Your task to perform on an android device: show emergency info Image 0: 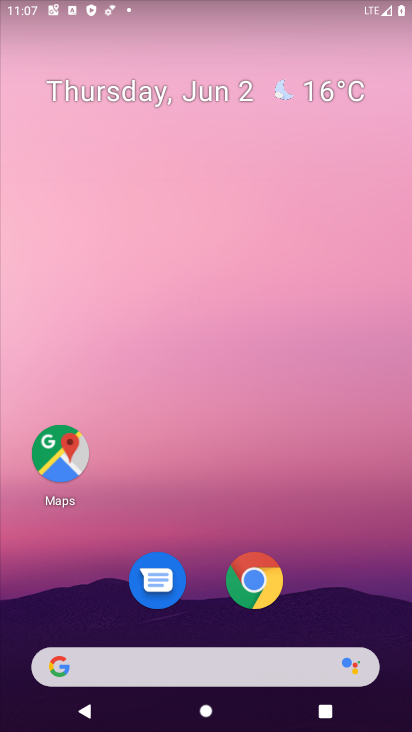
Step 0: drag from (184, 632) to (354, 24)
Your task to perform on an android device: show emergency info Image 1: 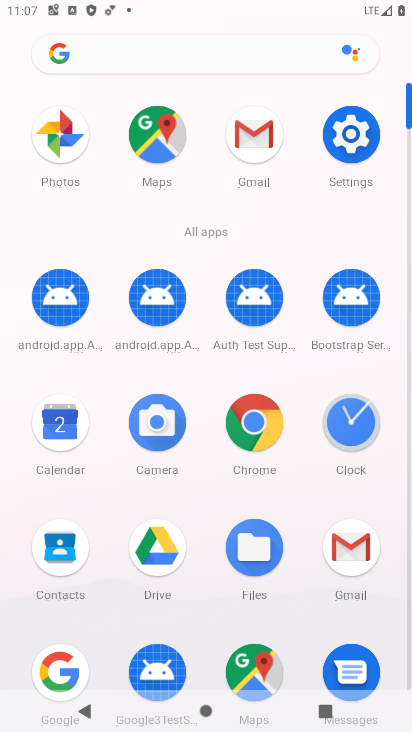
Step 1: click (356, 158)
Your task to perform on an android device: show emergency info Image 2: 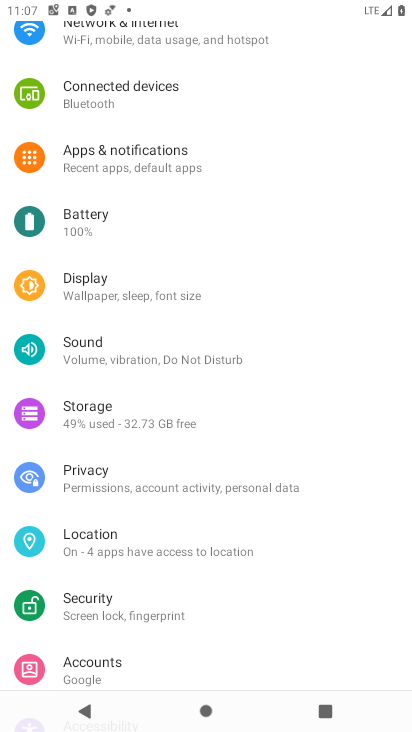
Step 2: drag from (212, 506) to (212, 211)
Your task to perform on an android device: show emergency info Image 3: 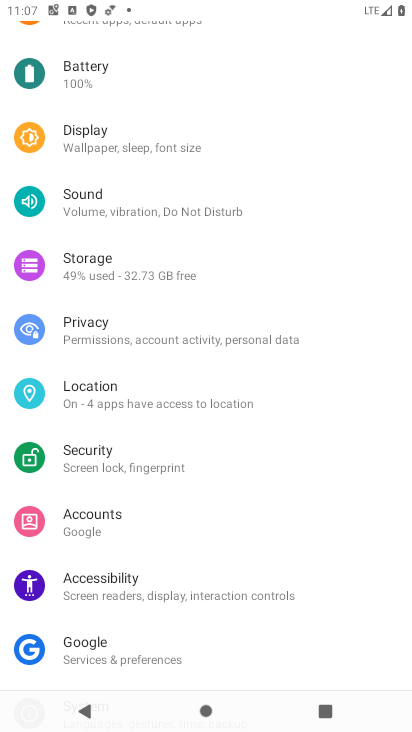
Step 3: drag from (194, 214) to (193, 141)
Your task to perform on an android device: show emergency info Image 4: 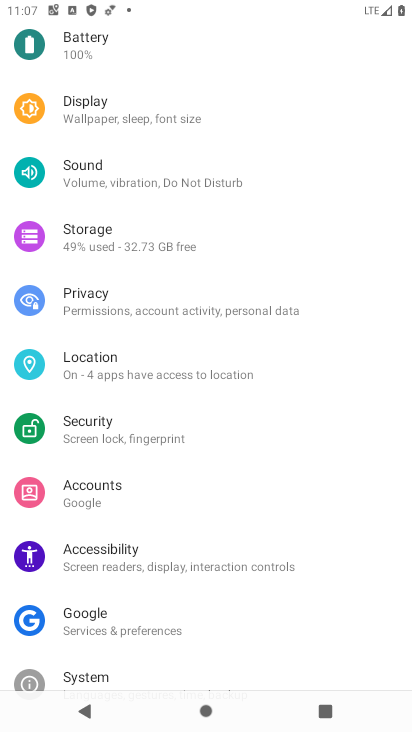
Step 4: drag from (194, 586) to (213, 199)
Your task to perform on an android device: show emergency info Image 5: 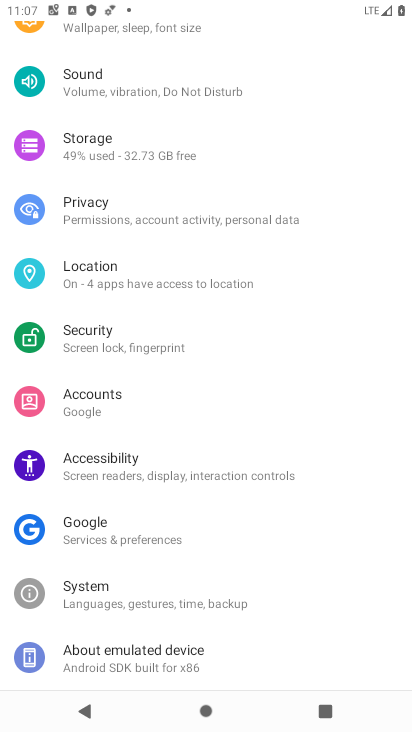
Step 5: drag from (224, 568) to (205, 728)
Your task to perform on an android device: show emergency info Image 6: 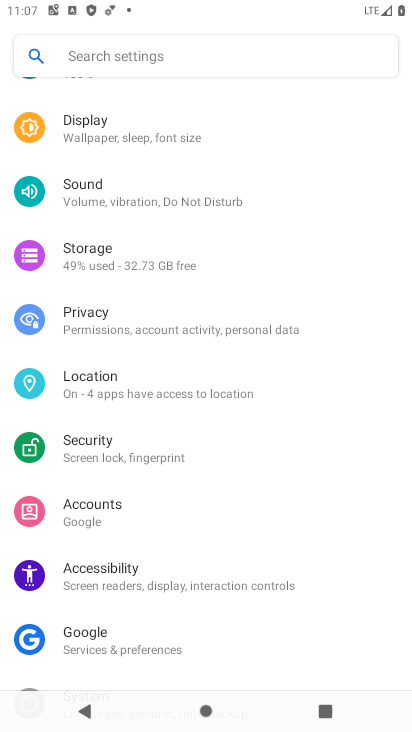
Step 6: drag from (214, 450) to (189, 684)
Your task to perform on an android device: show emergency info Image 7: 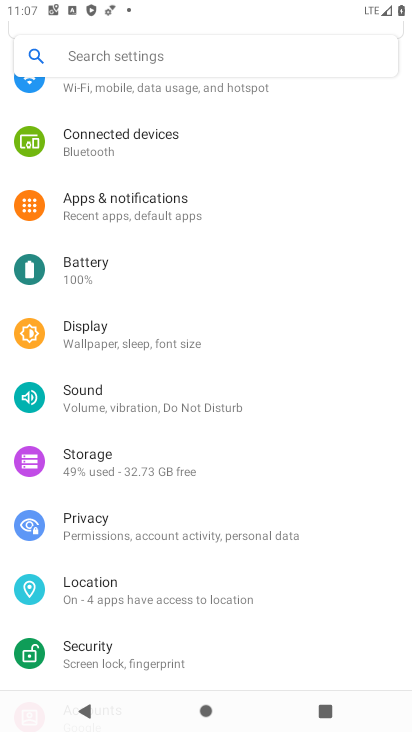
Step 7: drag from (233, 361) to (244, 557)
Your task to perform on an android device: show emergency info Image 8: 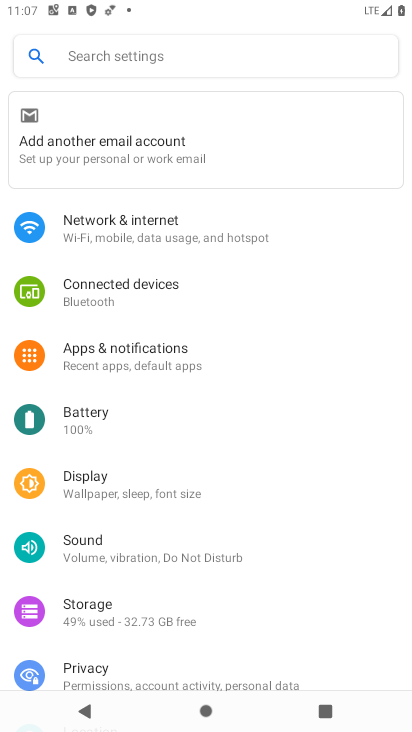
Step 8: drag from (221, 521) to (197, 225)
Your task to perform on an android device: show emergency info Image 9: 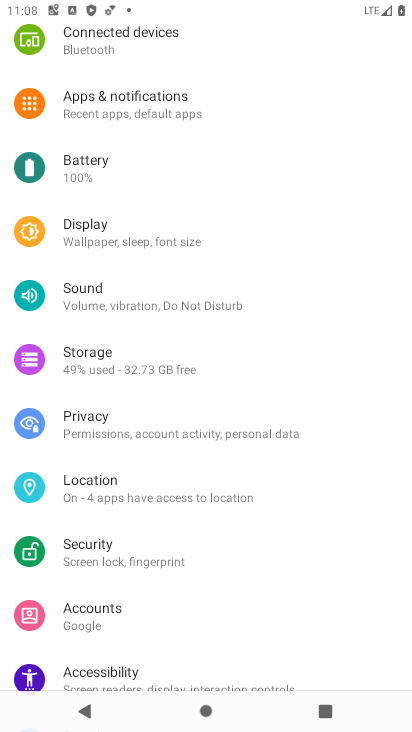
Step 9: drag from (175, 385) to (241, 90)
Your task to perform on an android device: show emergency info Image 10: 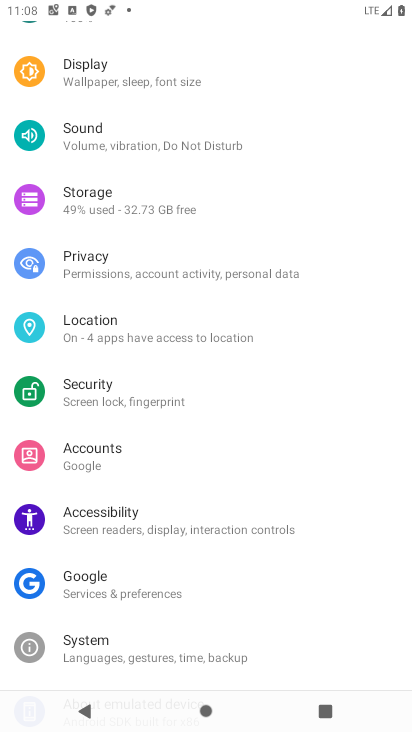
Step 10: drag from (150, 558) to (144, 105)
Your task to perform on an android device: show emergency info Image 11: 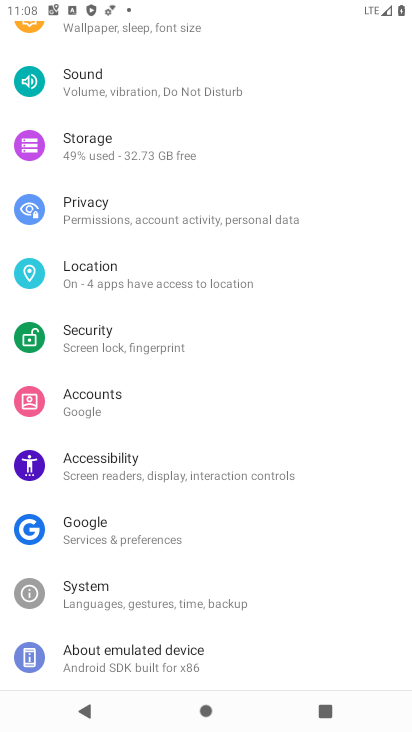
Step 11: click (169, 660)
Your task to perform on an android device: show emergency info Image 12: 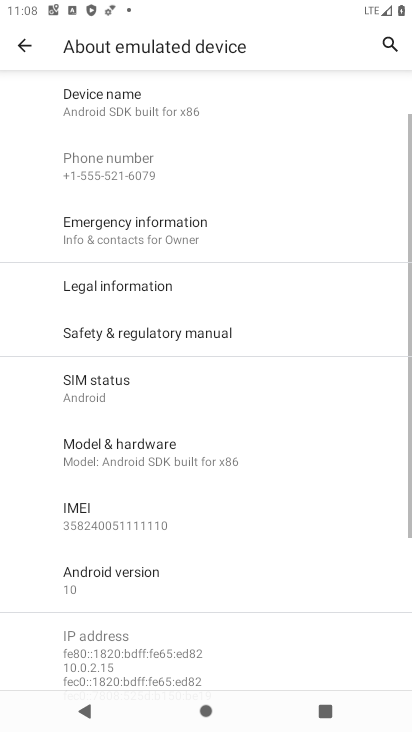
Step 12: click (162, 234)
Your task to perform on an android device: show emergency info Image 13: 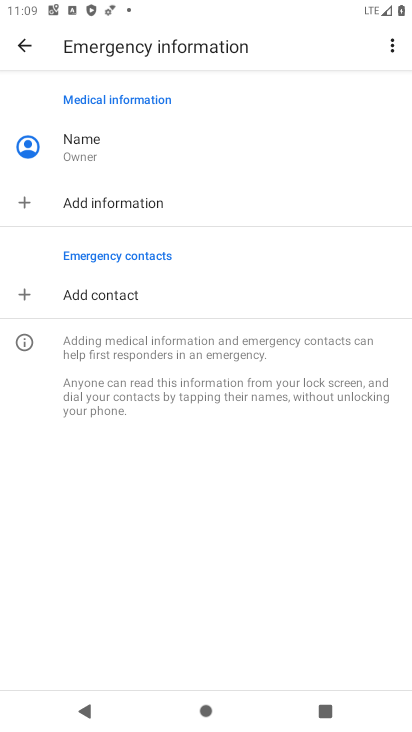
Step 13: task complete